Your task to perform on an android device: Open Wikipedia Image 0: 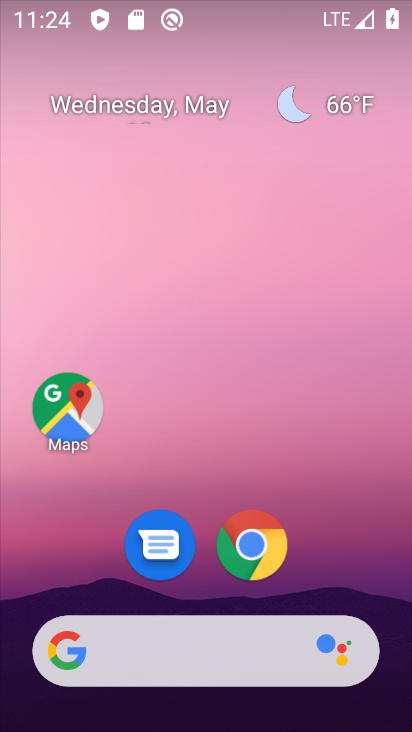
Step 0: click (188, 640)
Your task to perform on an android device: Open Wikipedia Image 1: 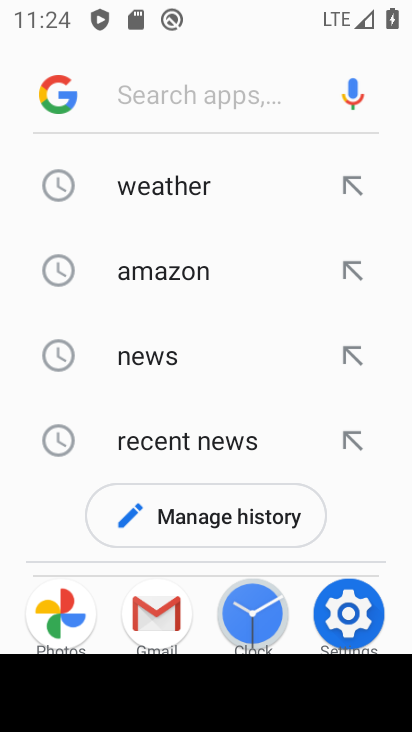
Step 1: type "wikipedia"
Your task to perform on an android device: Open Wikipedia Image 2: 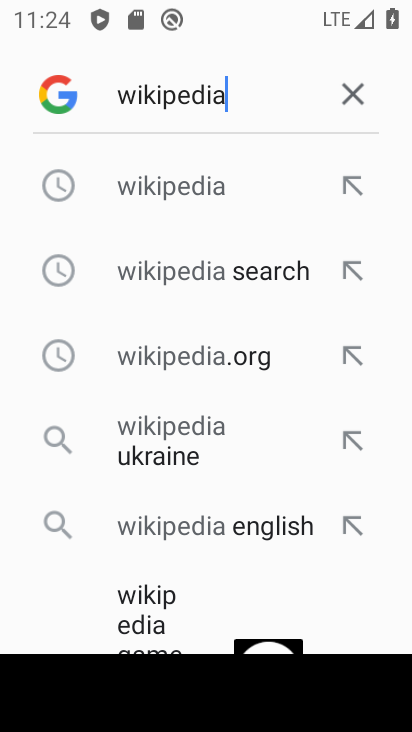
Step 2: click (181, 176)
Your task to perform on an android device: Open Wikipedia Image 3: 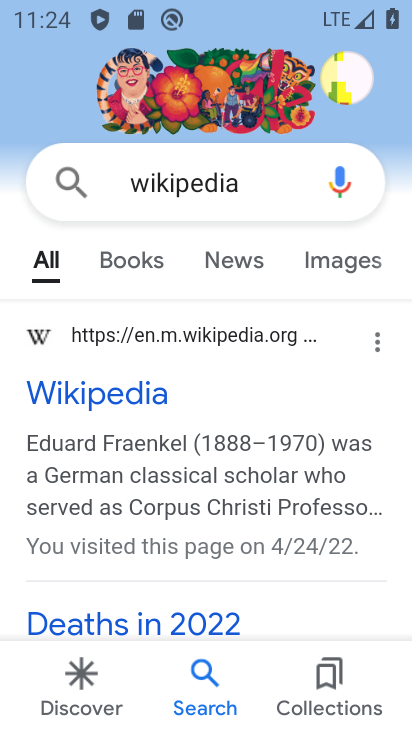
Step 3: click (209, 345)
Your task to perform on an android device: Open Wikipedia Image 4: 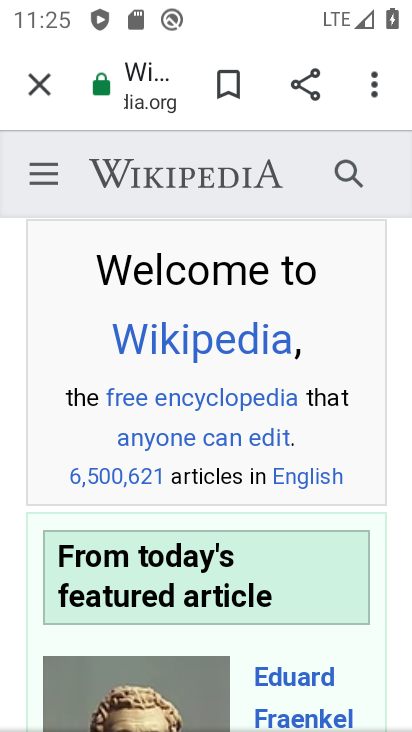
Step 4: task complete